Your task to perform on an android device: Go to Amazon Image 0: 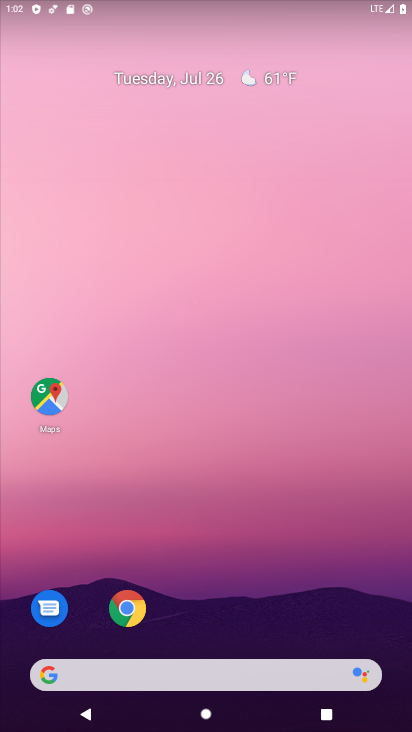
Step 0: click (133, 611)
Your task to perform on an android device: Go to Amazon Image 1: 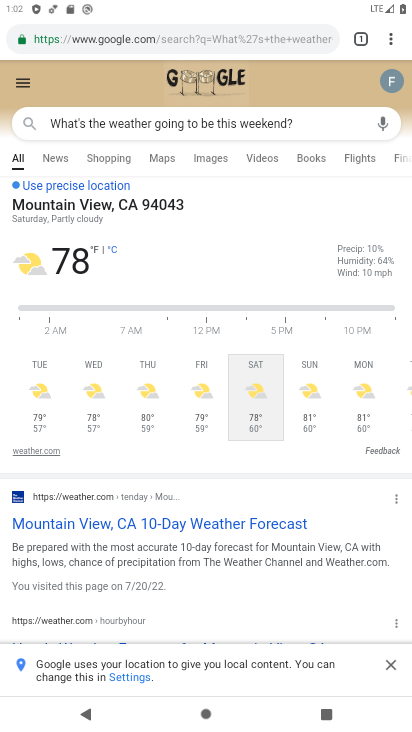
Step 1: click (363, 39)
Your task to perform on an android device: Go to Amazon Image 2: 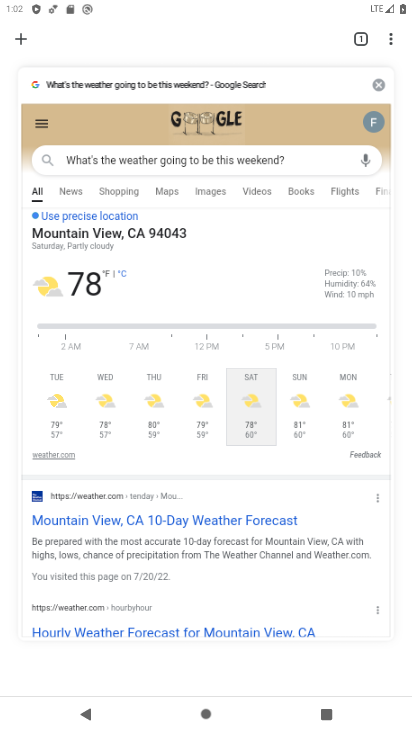
Step 2: click (17, 42)
Your task to perform on an android device: Go to Amazon Image 3: 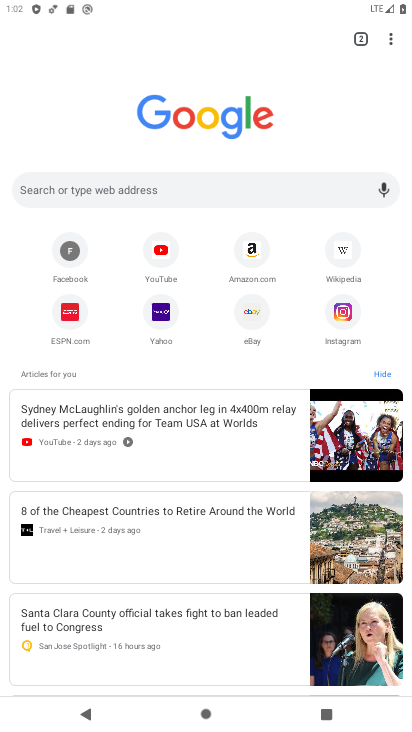
Step 3: click (249, 235)
Your task to perform on an android device: Go to Amazon Image 4: 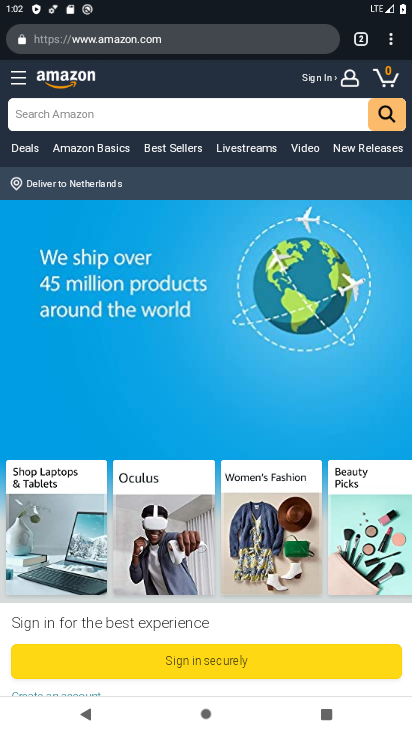
Step 4: task complete